Your task to perform on an android device: turn on the 24-hour format for clock Image 0: 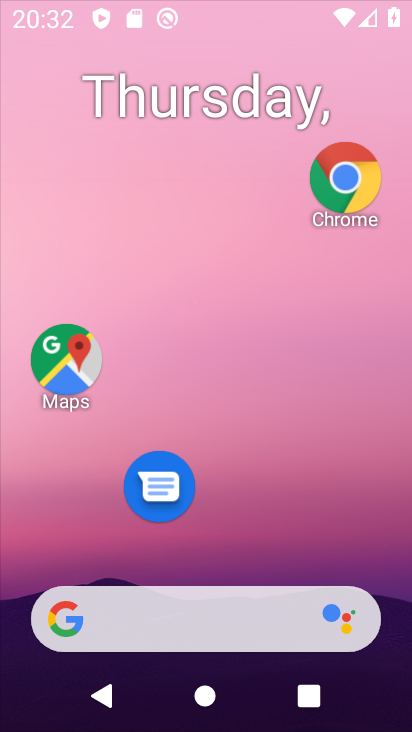
Step 0: drag from (240, 589) to (133, 6)
Your task to perform on an android device: turn on the 24-hour format for clock Image 1: 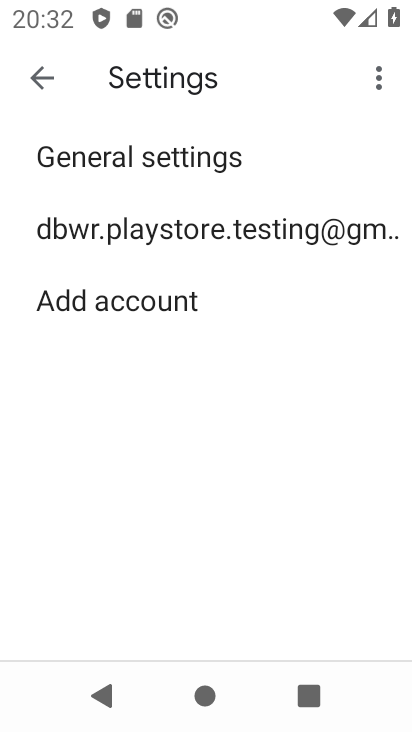
Step 1: press home button
Your task to perform on an android device: turn on the 24-hour format for clock Image 2: 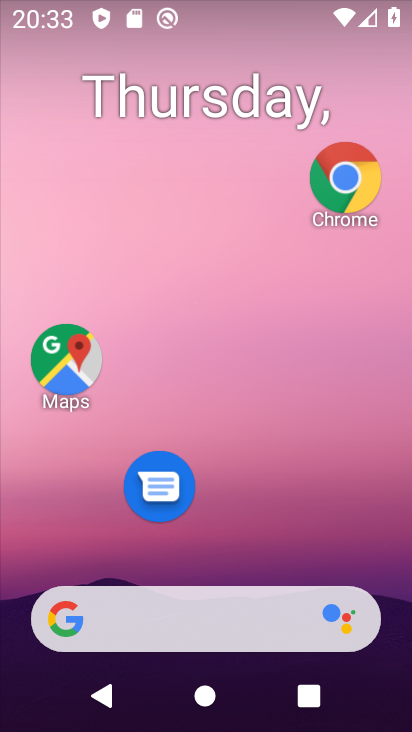
Step 2: drag from (234, 553) to (271, 20)
Your task to perform on an android device: turn on the 24-hour format for clock Image 3: 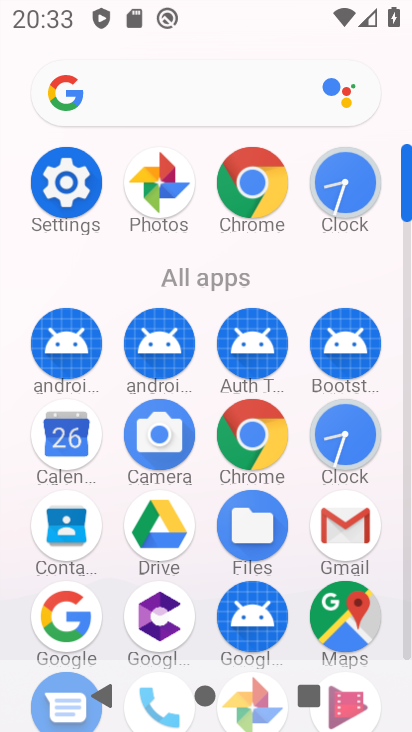
Step 3: click (354, 445)
Your task to perform on an android device: turn on the 24-hour format for clock Image 4: 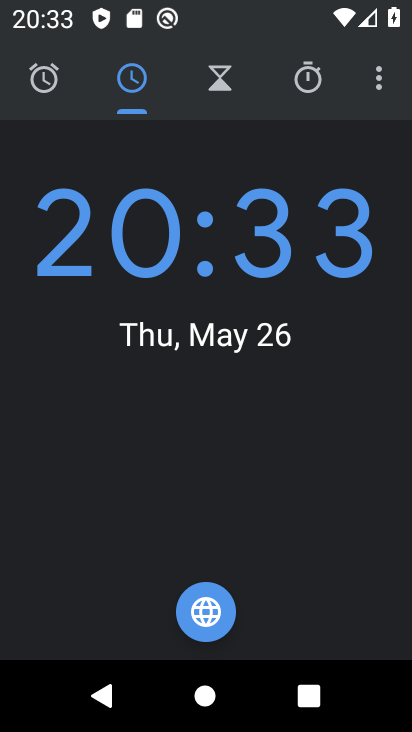
Step 4: click (381, 85)
Your task to perform on an android device: turn on the 24-hour format for clock Image 5: 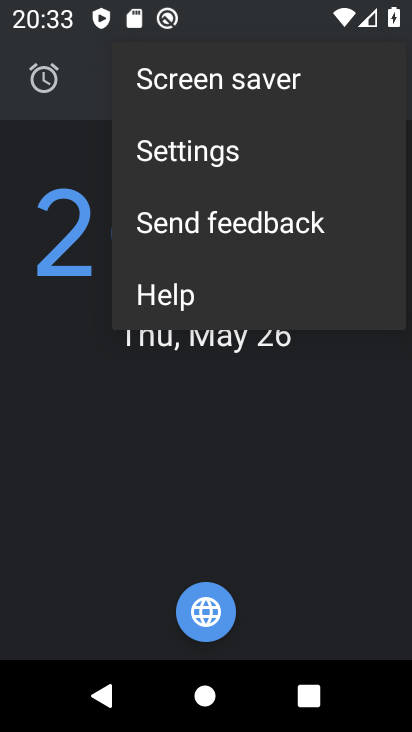
Step 5: click (182, 155)
Your task to perform on an android device: turn on the 24-hour format for clock Image 6: 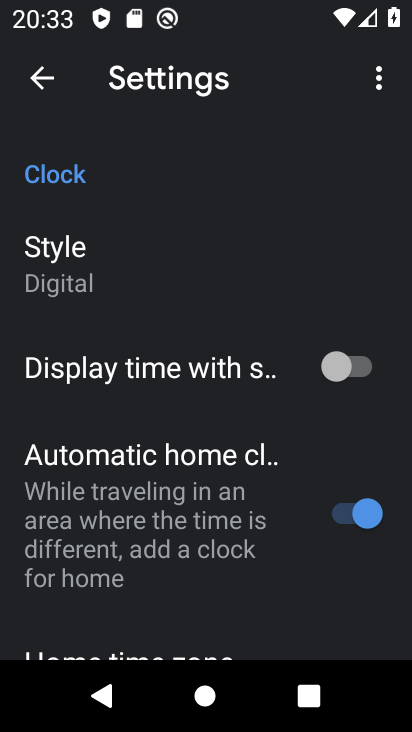
Step 6: drag from (242, 547) to (188, 354)
Your task to perform on an android device: turn on the 24-hour format for clock Image 7: 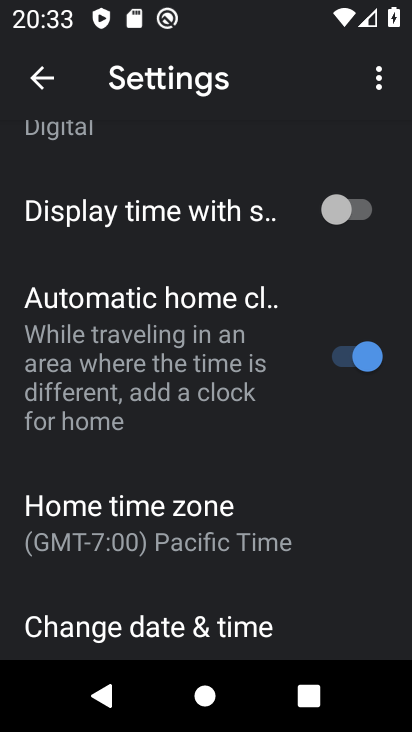
Step 7: drag from (215, 593) to (100, 108)
Your task to perform on an android device: turn on the 24-hour format for clock Image 8: 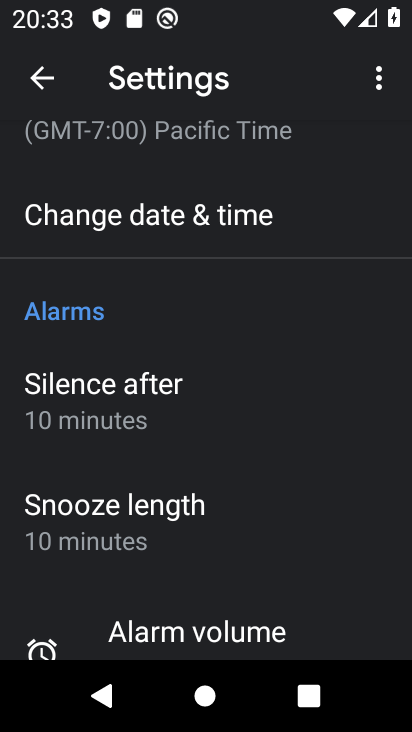
Step 8: click (119, 223)
Your task to perform on an android device: turn on the 24-hour format for clock Image 9: 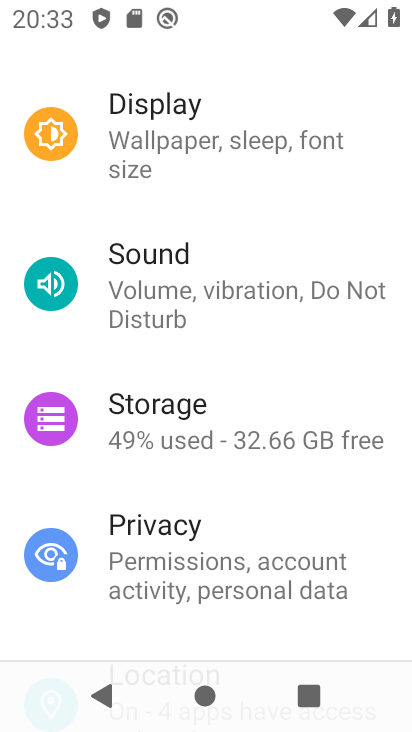
Step 9: task complete